Your task to perform on an android device: Open calendar and show me the first week of next month Image 0: 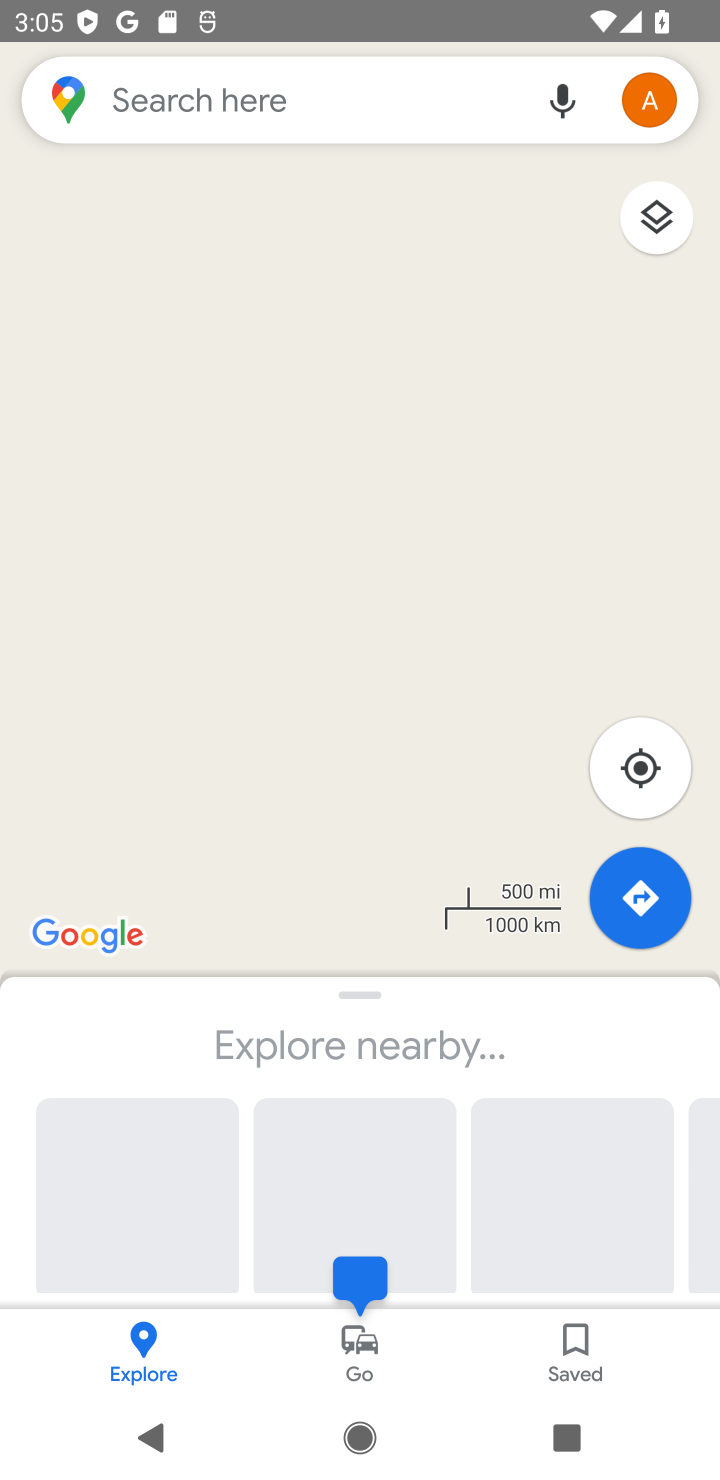
Step 0: press home button
Your task to perform on an android device: Open calendar and show me the first week of next month Image 1: 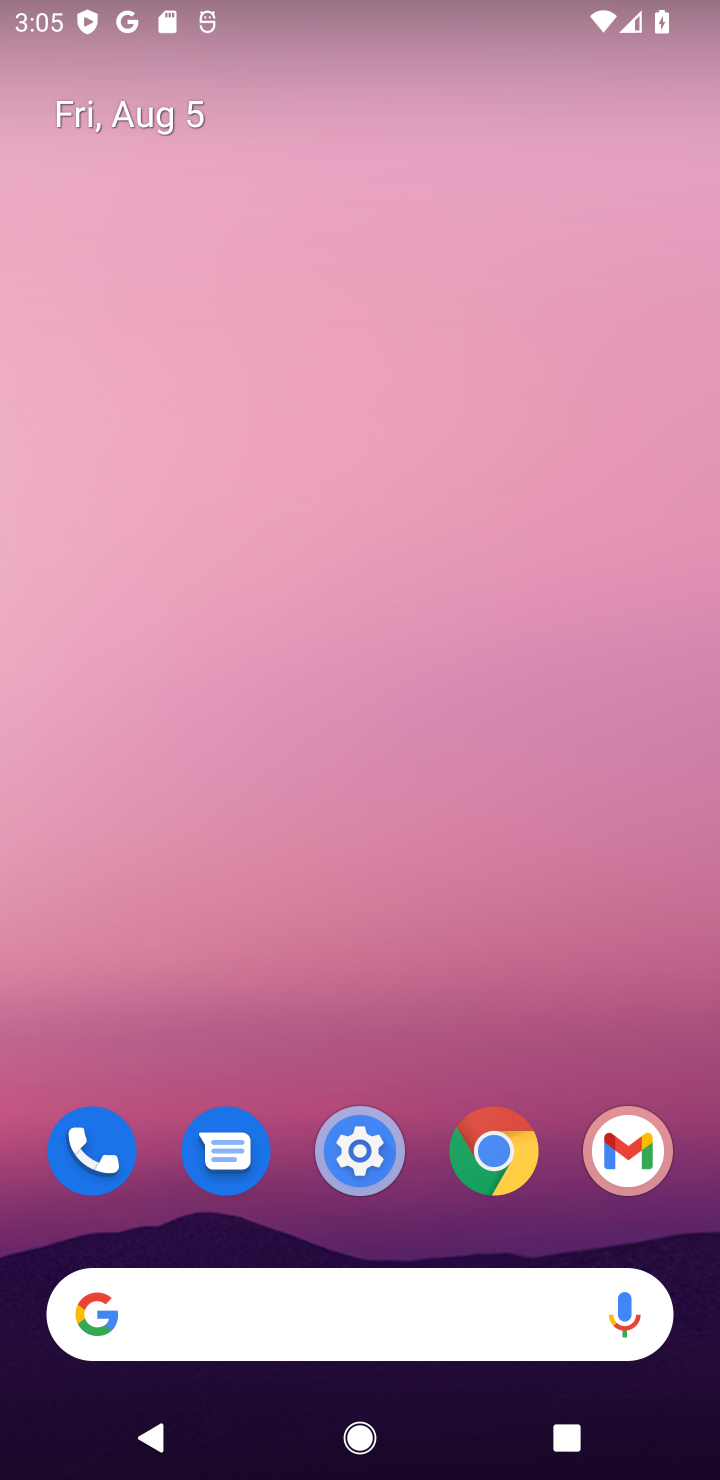
Step 1: drag from (394, 1083) to (411, 14)
Your task to perform on an android device: Open calendar and show me the first week of next month Image 2: 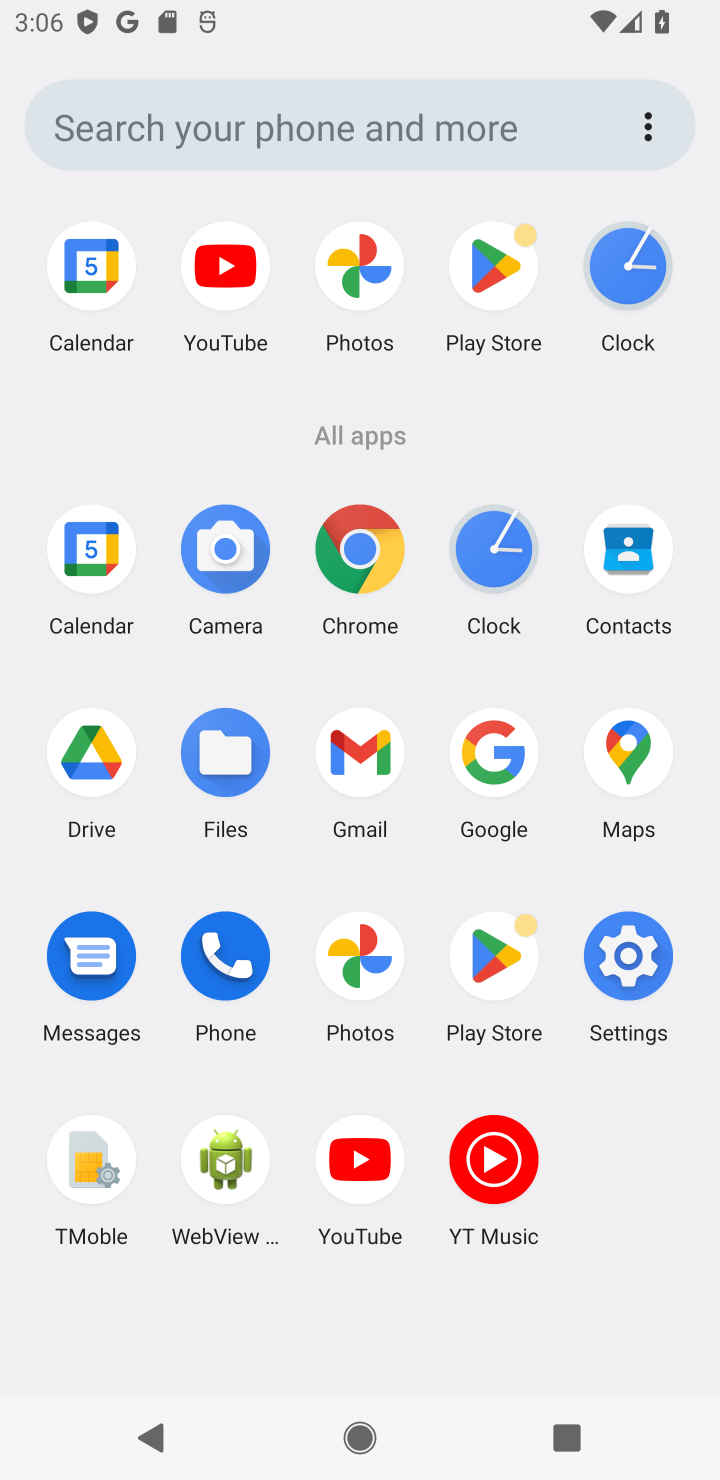
Step 2: click (95, 566)
Your task to perform on an android device: Open calendar and show me the first week of next month Image 3: 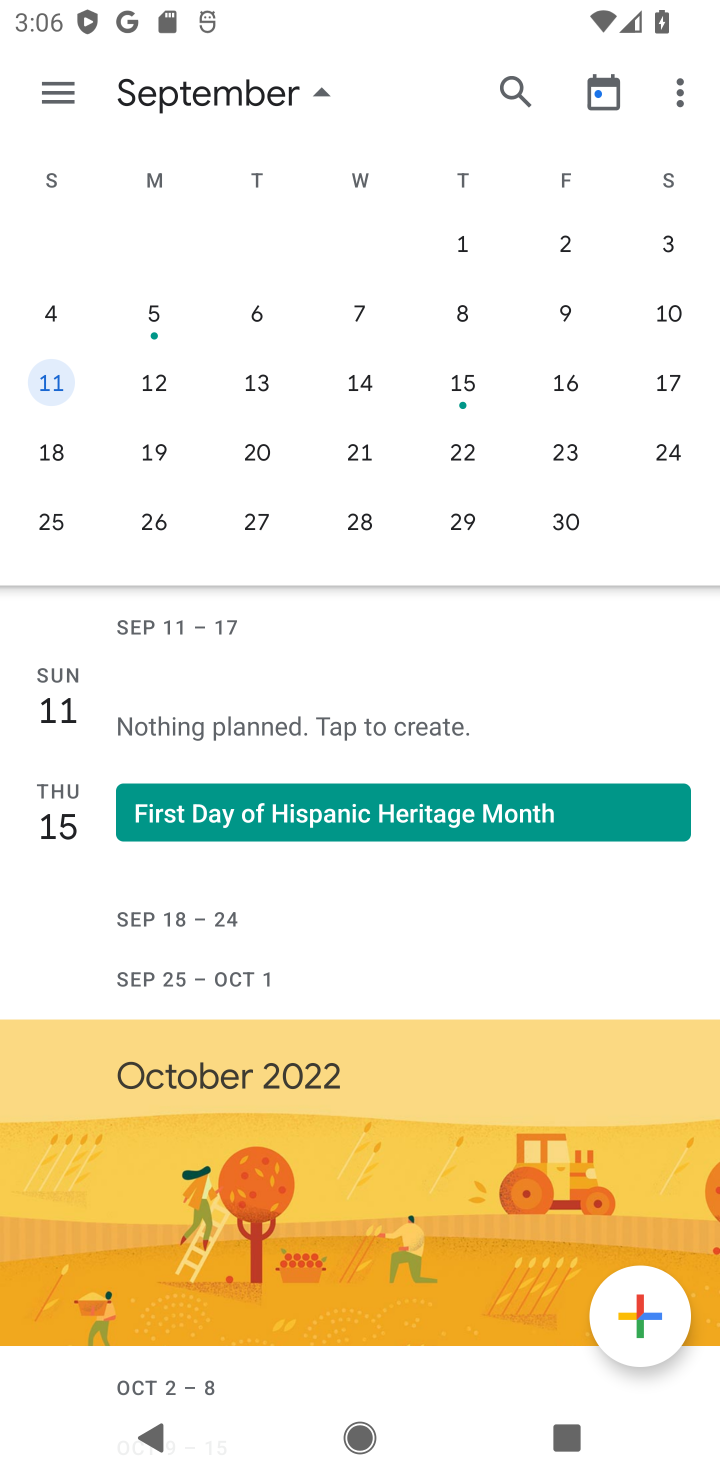
Step 3: click (465, 253)
Your task to perform on an android device: Open calendar and show me the first week of next month Image 4: 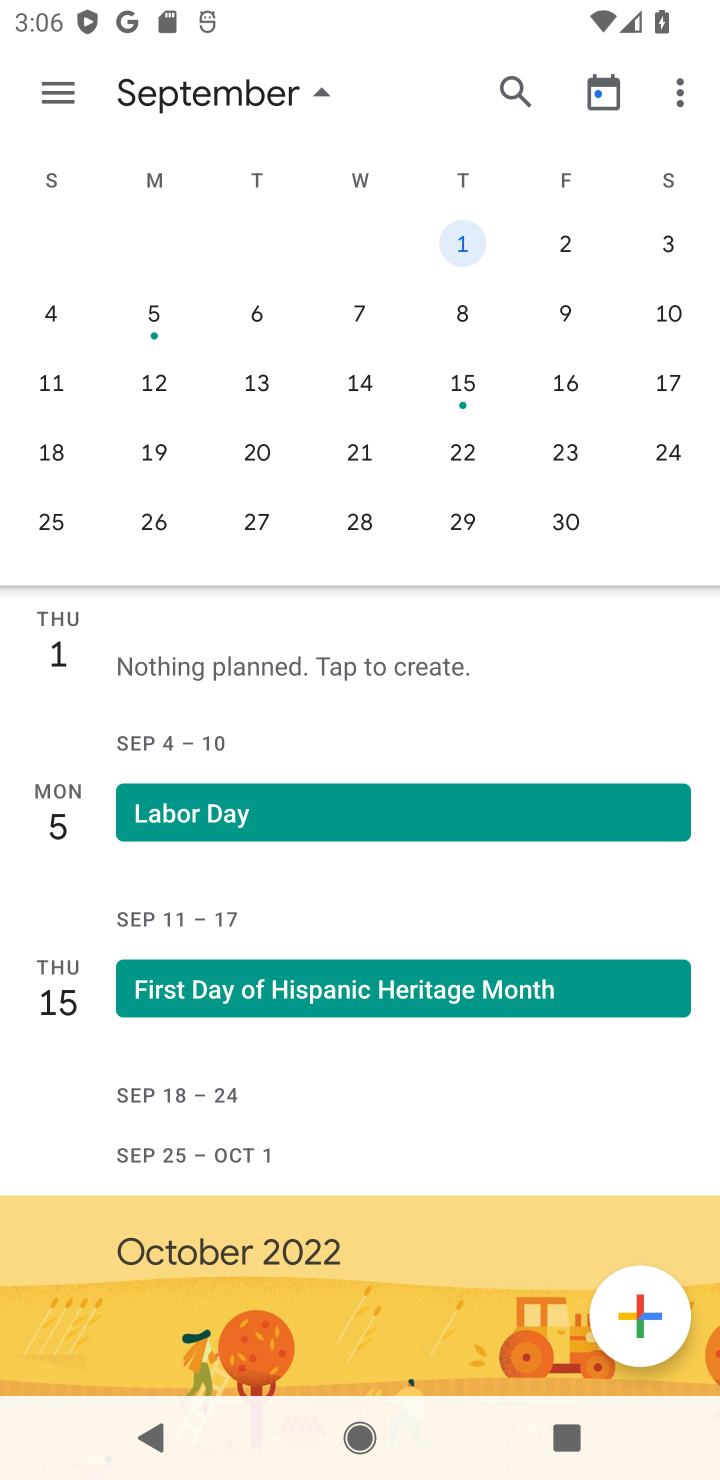
Step 4: task complete